Your task to perform on an android device: open chrome and create a bookmark for the current page Image 0: 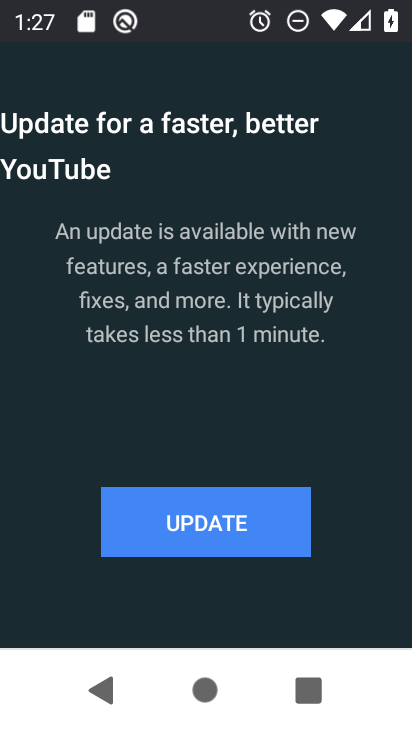
Step 0: press home button
Your task to perform on an android device: open chrome and create a bookmark for the current page Image 1: 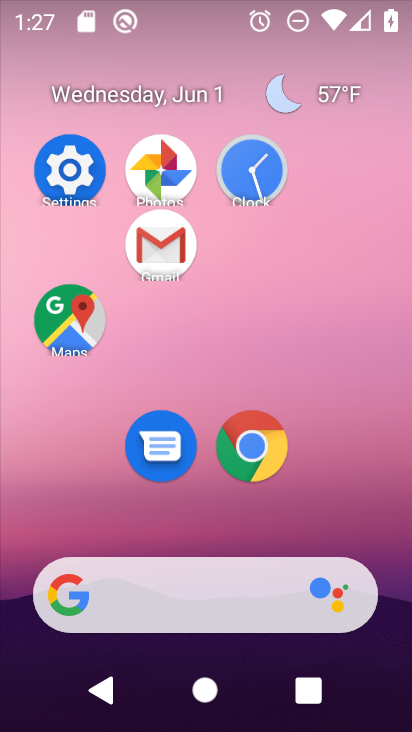
Step 1: click (254, 454)
Your task to perform on an android device: open chrome and create a bookmark for the current page Image 2: 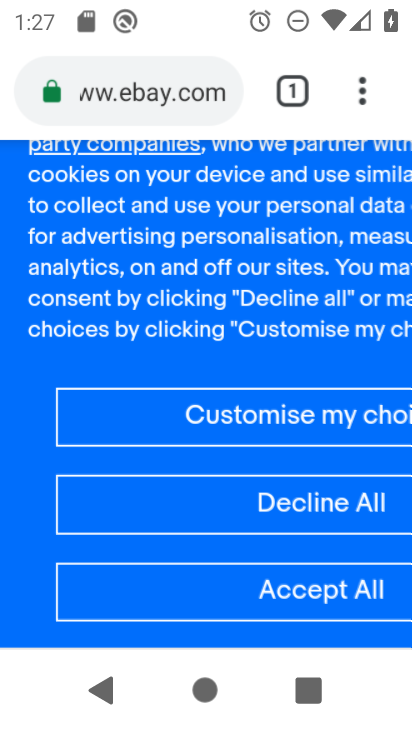
Step 2: click (363, 89)
Your task to perform on an android device: open chrome and create a bookmark for the current page Image 3: 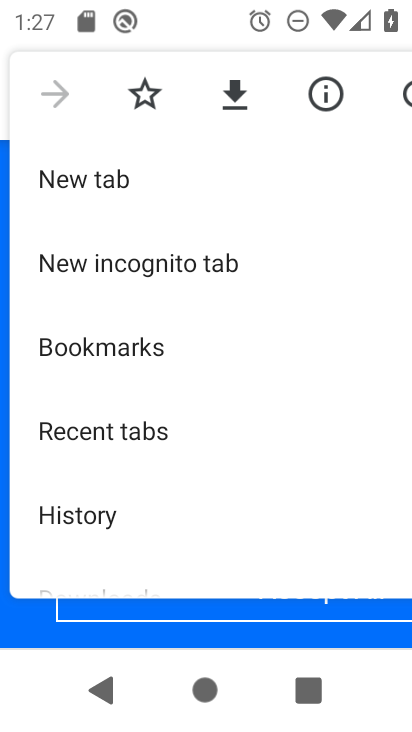
Step 3: click (161, 101)
Your task to perform on an android device: open chrome and create a bookmark for the current page Image 4: 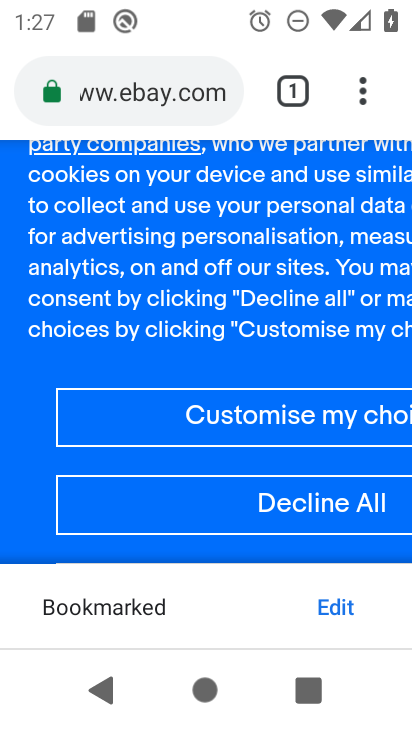
Step 4: task complete